Your task to perform on an android device: turn on translation in the chrome app Image 0: 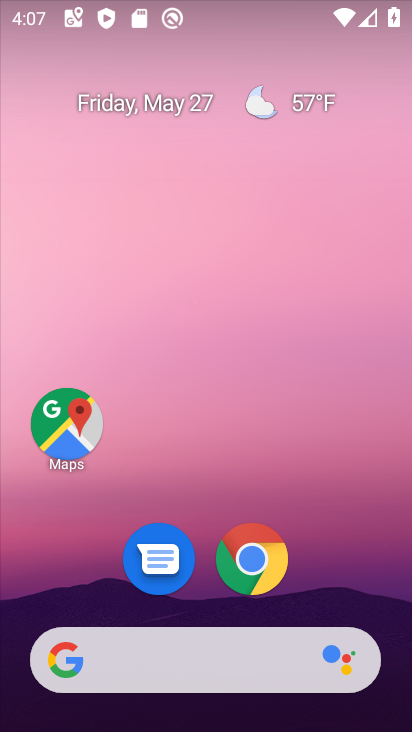
Step 0: click (288, 560)
Your task to perform on an android device: turn on translation in the chrome app Image 1: 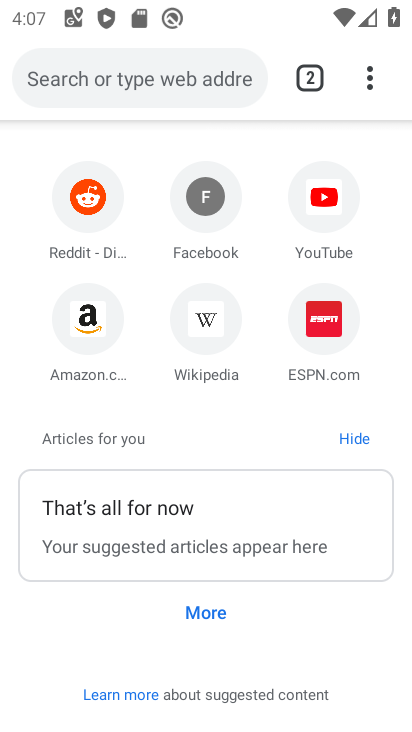
Step 1: click (374, 94)
Your task to perform on an android device: turn on translation in the chrome app Image 2: 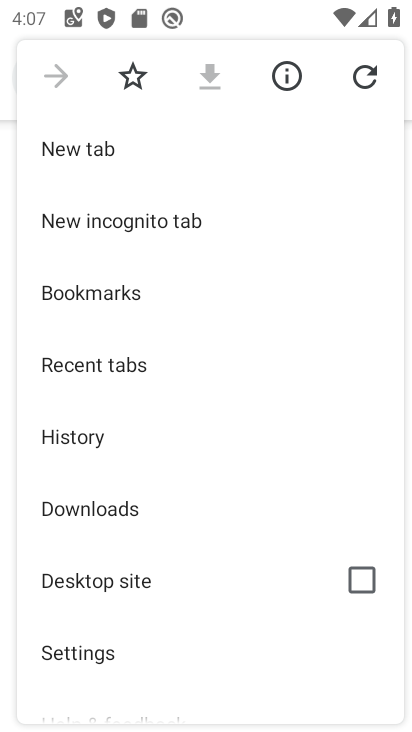
Step 2: click (134, 648)
Your task to perform on an android device: turn on translation in the chrome app Image 3: 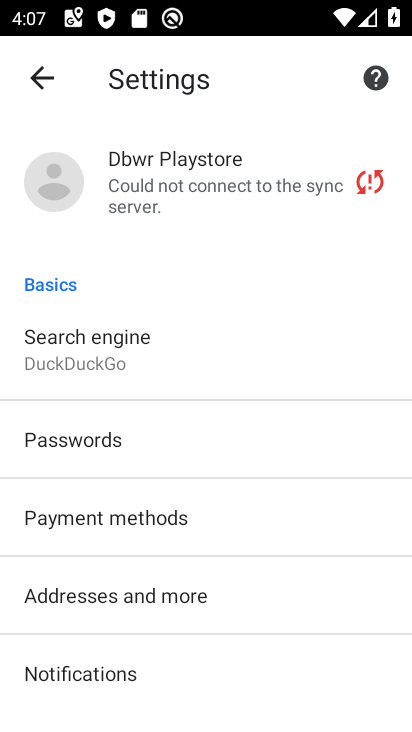
Step 3: drag from (188, 650) to (196, 297)
Your task to perform on an android device: turn on translation in the chrome app Image 4: 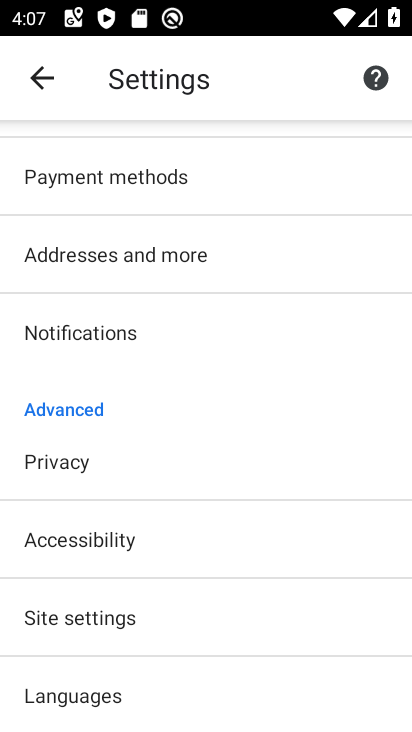
Step 4: drag from (162, 668) to (234, 238)
Your task to perform on an android device: turn on translation in the chrome app Image 5: 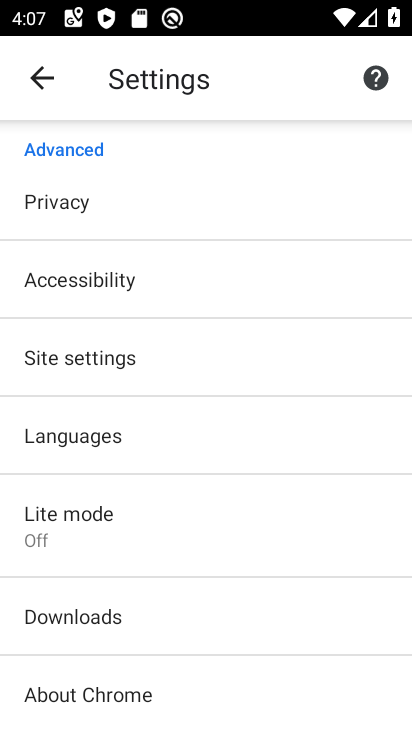
Step 5: click (237, 425)
Your task to perform on an android device: turn on translation in the chrome app Image 6: 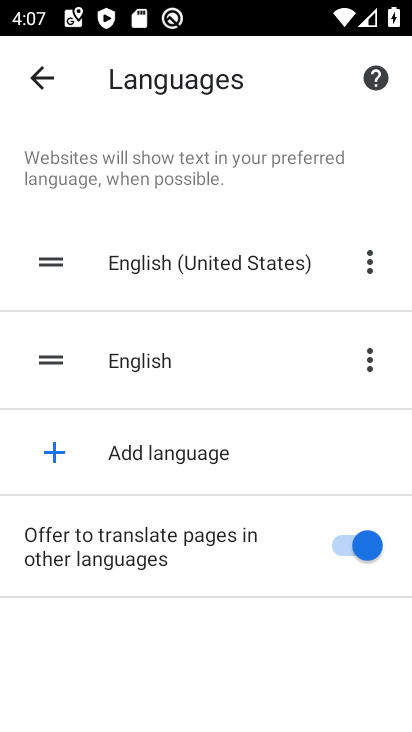
Step 6: click (342, 575)
Your task to perform on an android device: turn on translation in the chrome app Image 7: 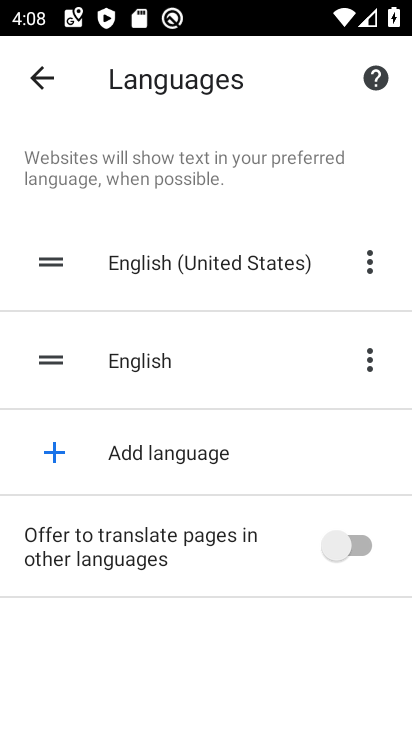
Step 7: task complete